Your task to perform on an android device: toggle javascript in the chrome app Image 0: 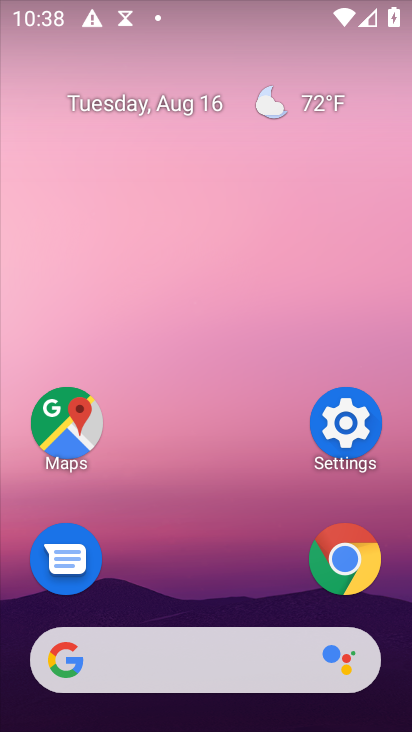
Step 0: click (352, 553)
Your task to perform on an android device: toggle javascript in the chrome app Image 1: 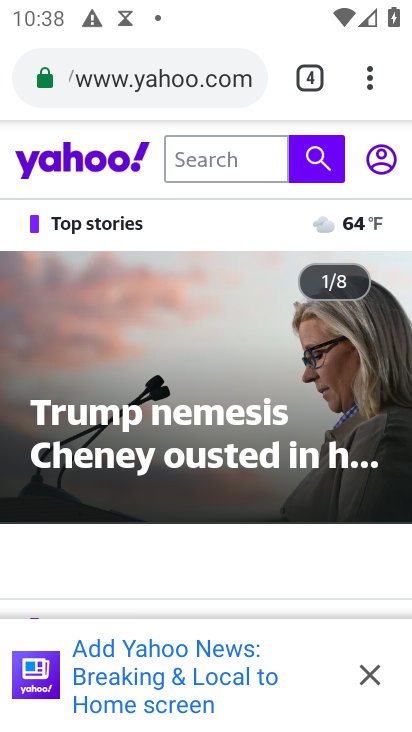
Step 1: drag from (367, 81) to (183, 617)
Your task to perform on an android device: toggle javascript in the chrome app Image 2: 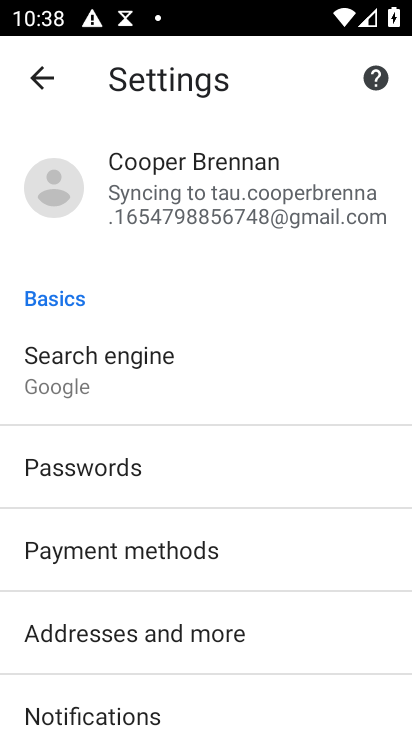
Step 2: drag from (195, 670) to (334, 144)
Your task to perform on an android device: toggle javascript in the chrome app Image 3: 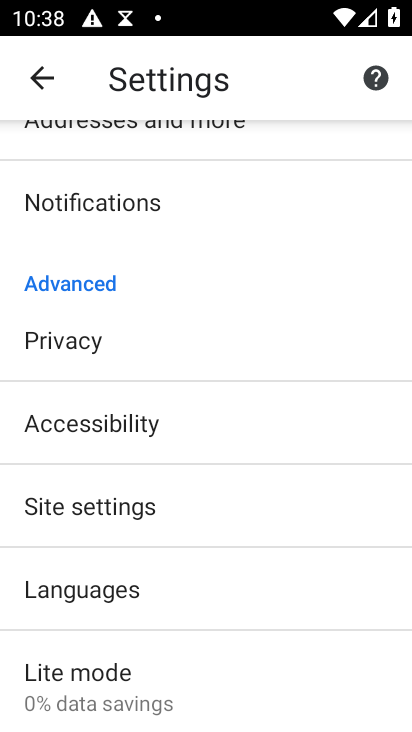
Step 3: click (138, 514)
Your task to perform on an android device: toggle javascript in the chrome app Image 4: 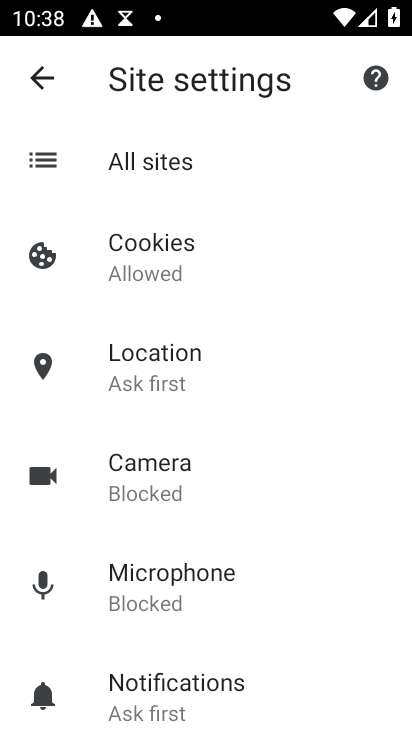
Step 4: drag from (264, 645) to (336, 229)
Your task to perform on an android device: toggle javascript in the chrome app Image 5: 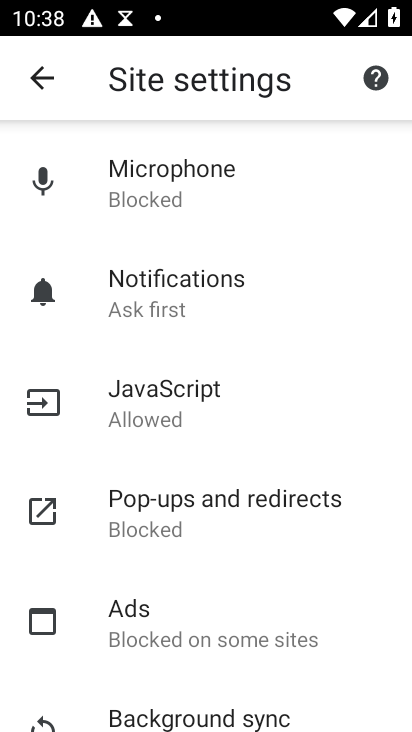
Step 5: click (149, 403)
Your task to perform on an android device: toggle javascript in the chrome app Image 6: 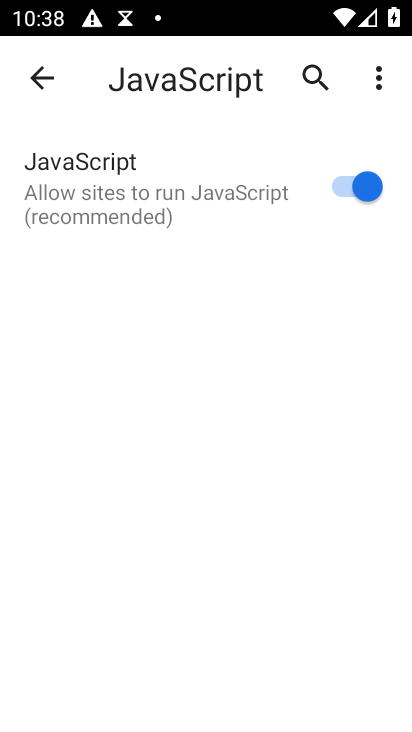
Step 6: click (351, 180)
Your task to perform on an android device: toggle javascript in the chrome app Image 7: 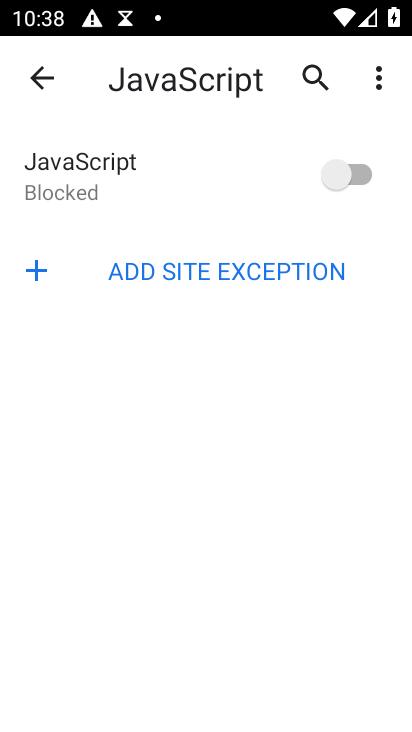
Step 7: task complete